Your task to perform on an android device: Open Wikipedia Image 0: 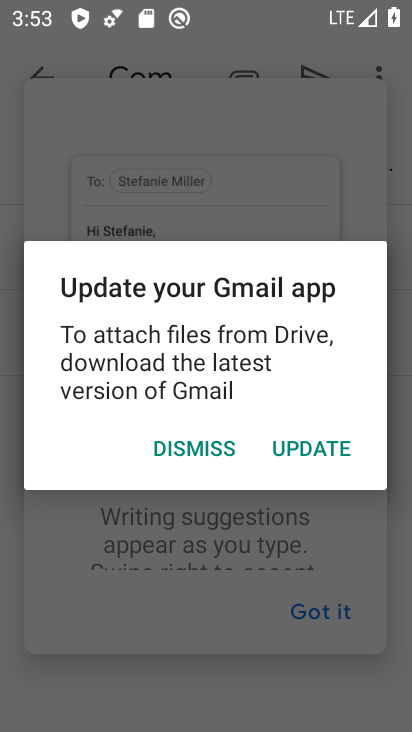
Step 0: press home button
Your task to perform on an android device: Open Wikipedia Image 1: 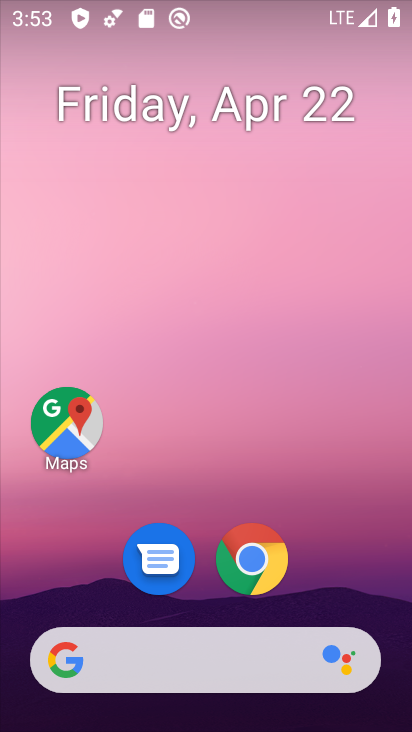
Step 1: click (253, 574)
Your task to perform on an android device: Open Wikipedia Image 2: 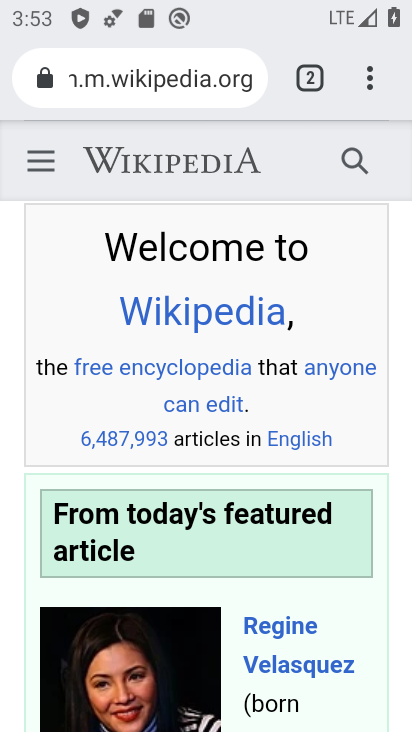
Step 2: task complete